Your task to perform on an android device: Go to wifi settings Image 0: 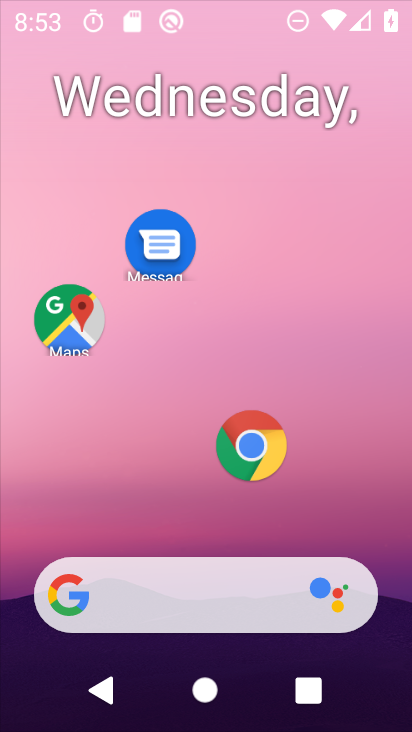
Step 0: press home button
Your task to perform on an android device: Go to wifi settings Image 1: 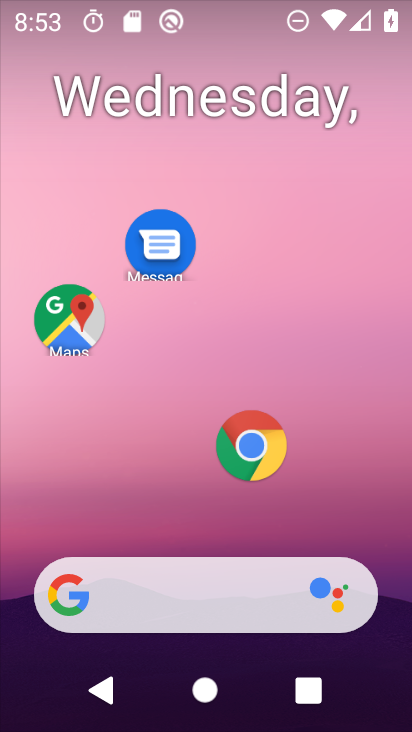
Step 1: drag from (206, 519) to (202, 16)
Your task to perform on an android device: Go to wifi settings Image 2: 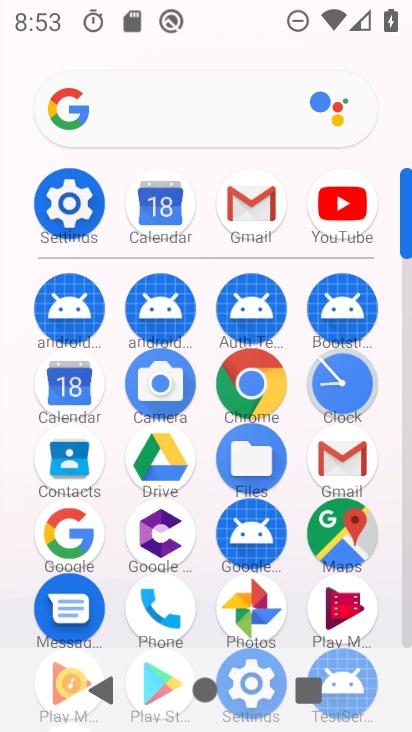
Step 2: click (64, 204)
Your task to perform on an android device: Go to wifi settings Image 3: 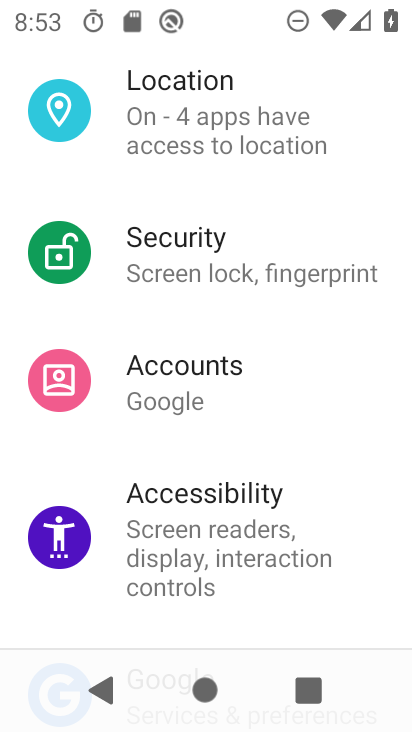
Step 3: drag from (168, 128) to (212, 641)
Your task to perform on an android device: Go to wifi settings Image 4: 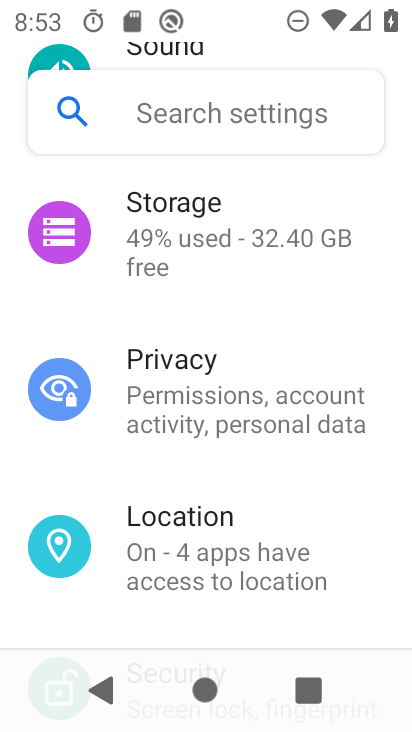
Step 4: drag from (186, 205) to (243, 640)
Your task to perform on an android device: Go to wifi settings Image 5: 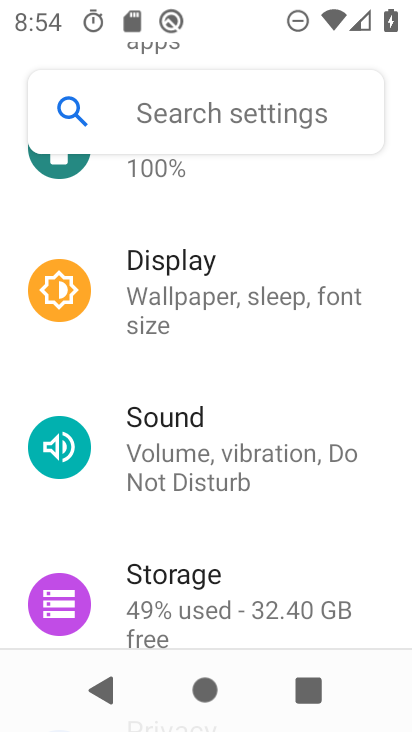
Step 5: drag from (194, 183) to (219, 643)
Your task to perform on an android device: Go to wifi settings Image 6: 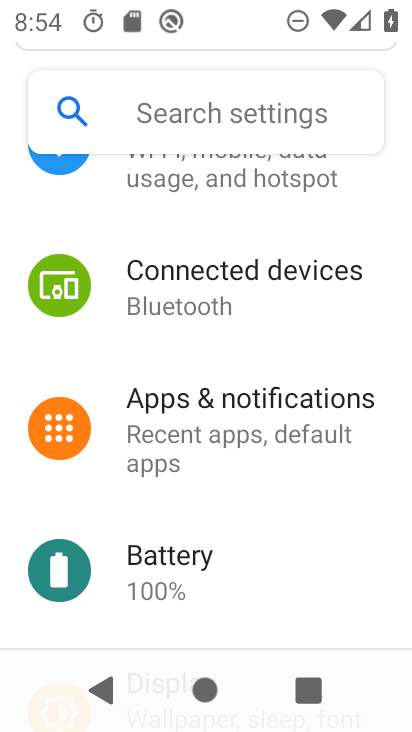
Step 6: drag from (191, 189) to (204, 617)
Your task to perform on an android device: Go to wifi settings Image 7: 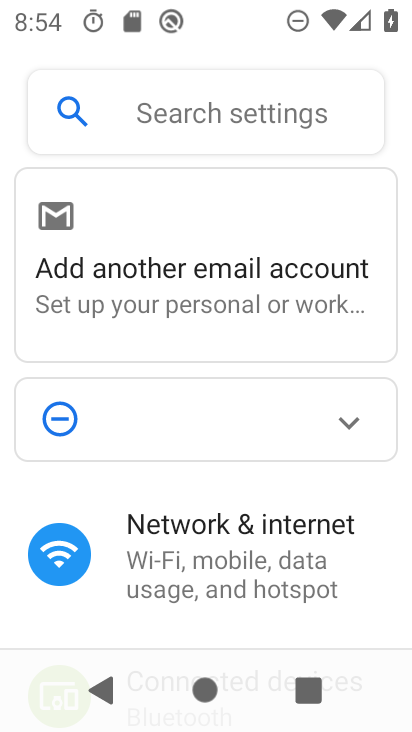
Step 7: click (207, 548)
Your task to perform on an android device: Go to wifi settings Image 8: 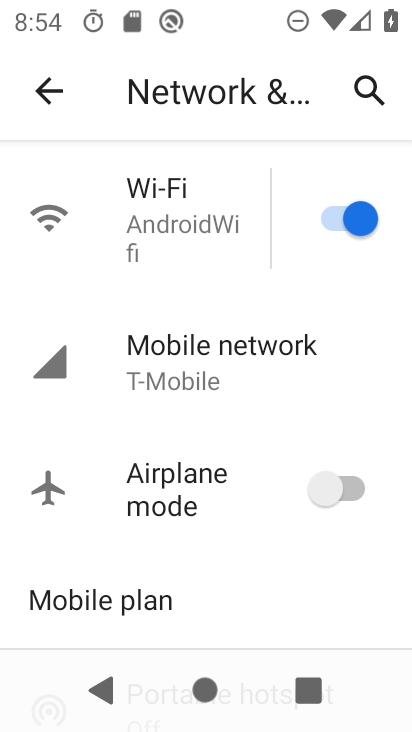
Step 8: click (178, 230)
Your task to perform on an android device: Go to wifi settings Image 9: 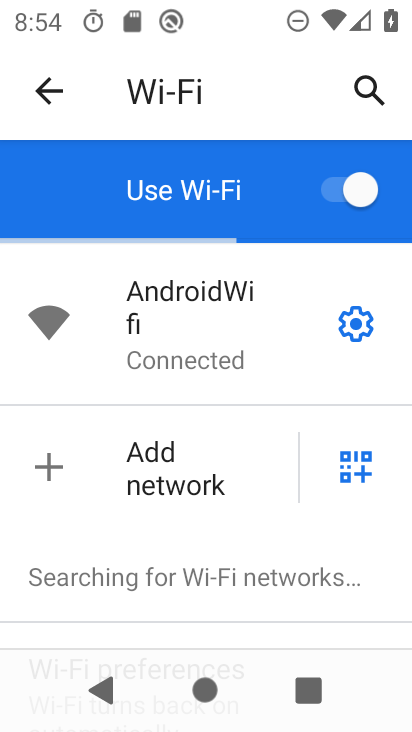
Step 9: task complete